Your task to perform on an android device: Open Maps and search for coffee Image 0: 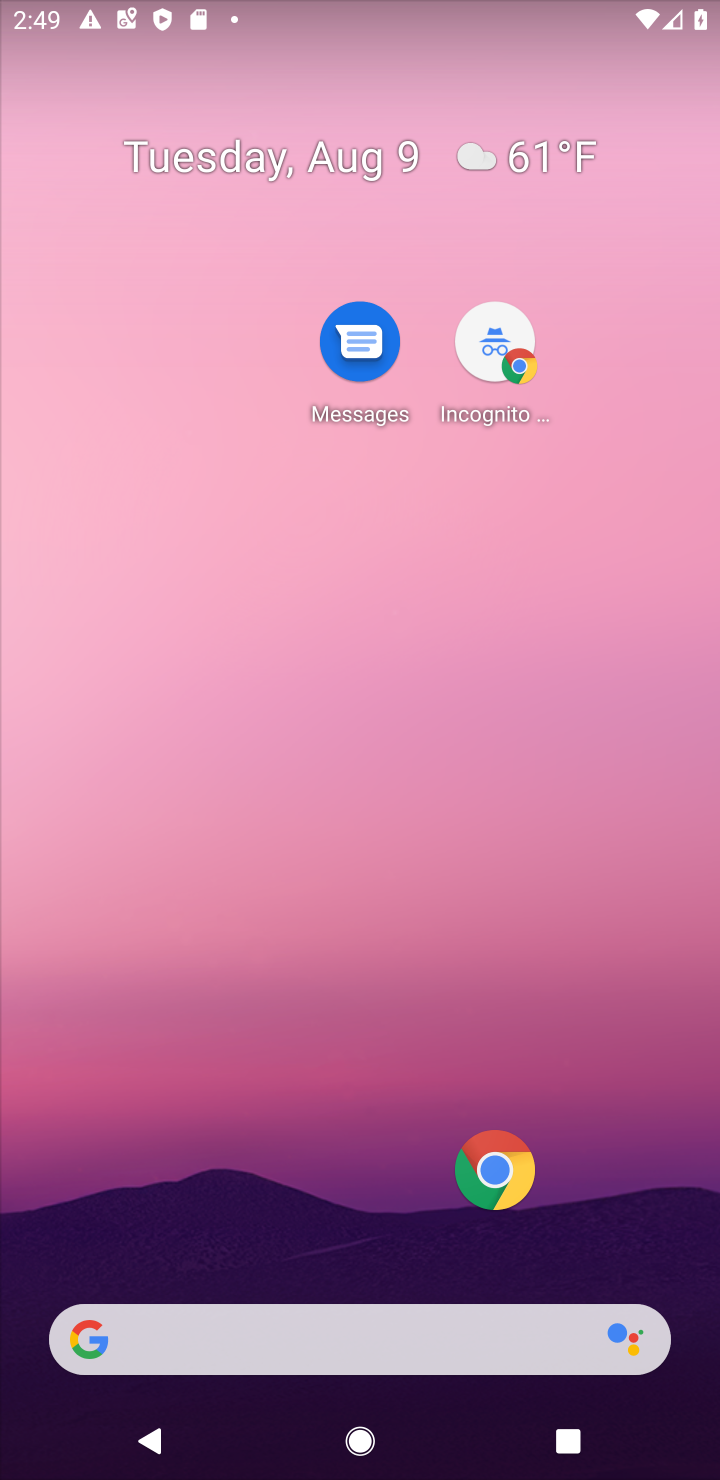
Step 0: drag from (353, 1220) to (497, 1)
Your task to perform on an android device: Open Maps and search for coffee Image 1: 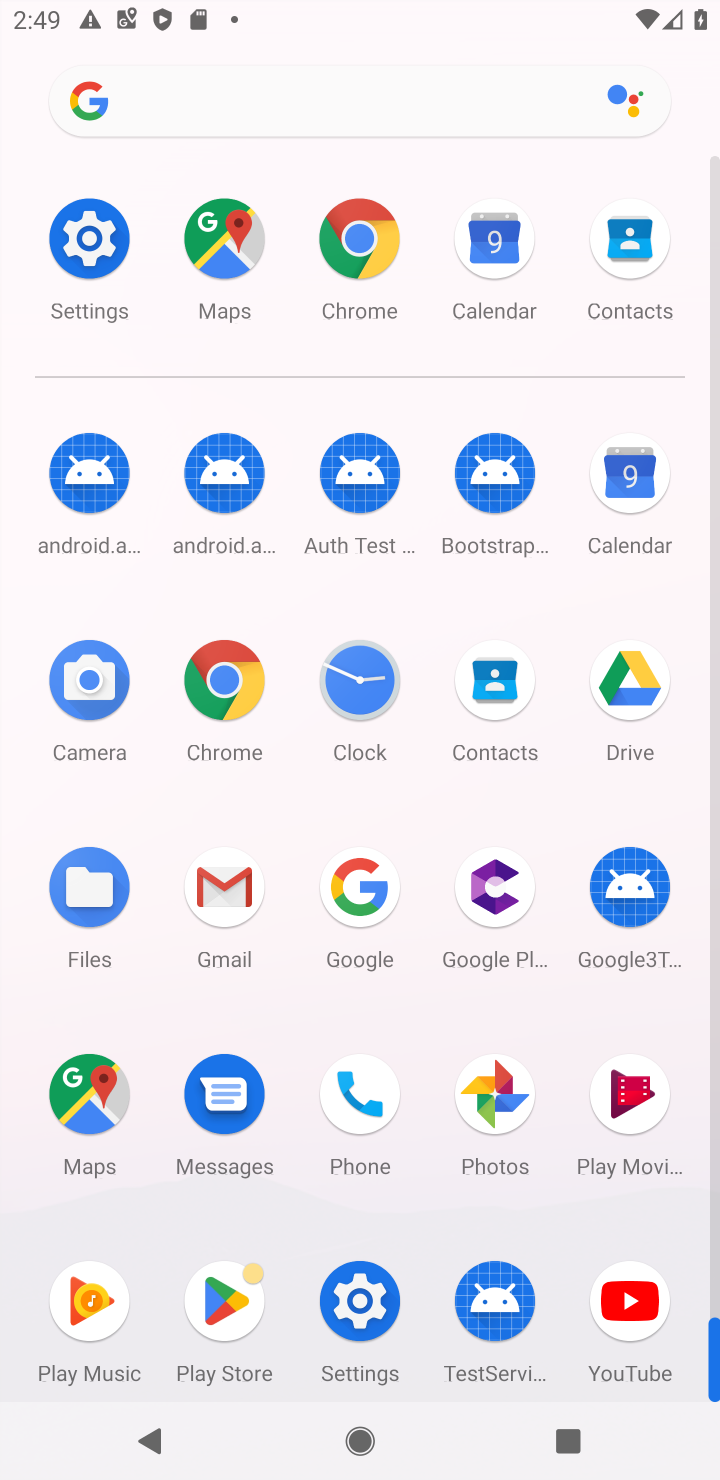
Step 1: click (101, 1102)
Your task to perform on an android device: Open Maps and search for coffee Image 2: 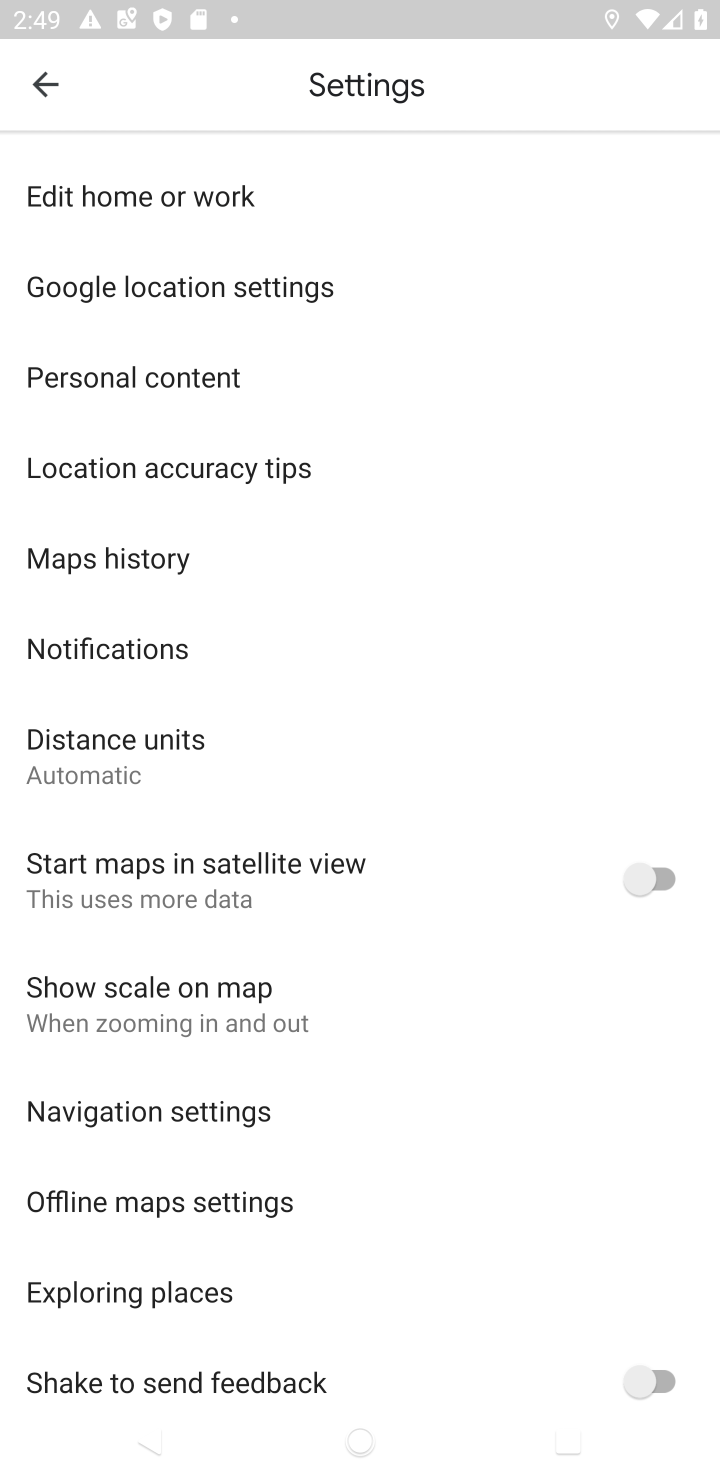
Step 2: click (49, 106)
Your task to perform on an android device: Open Maps and search for coffee Image 3: 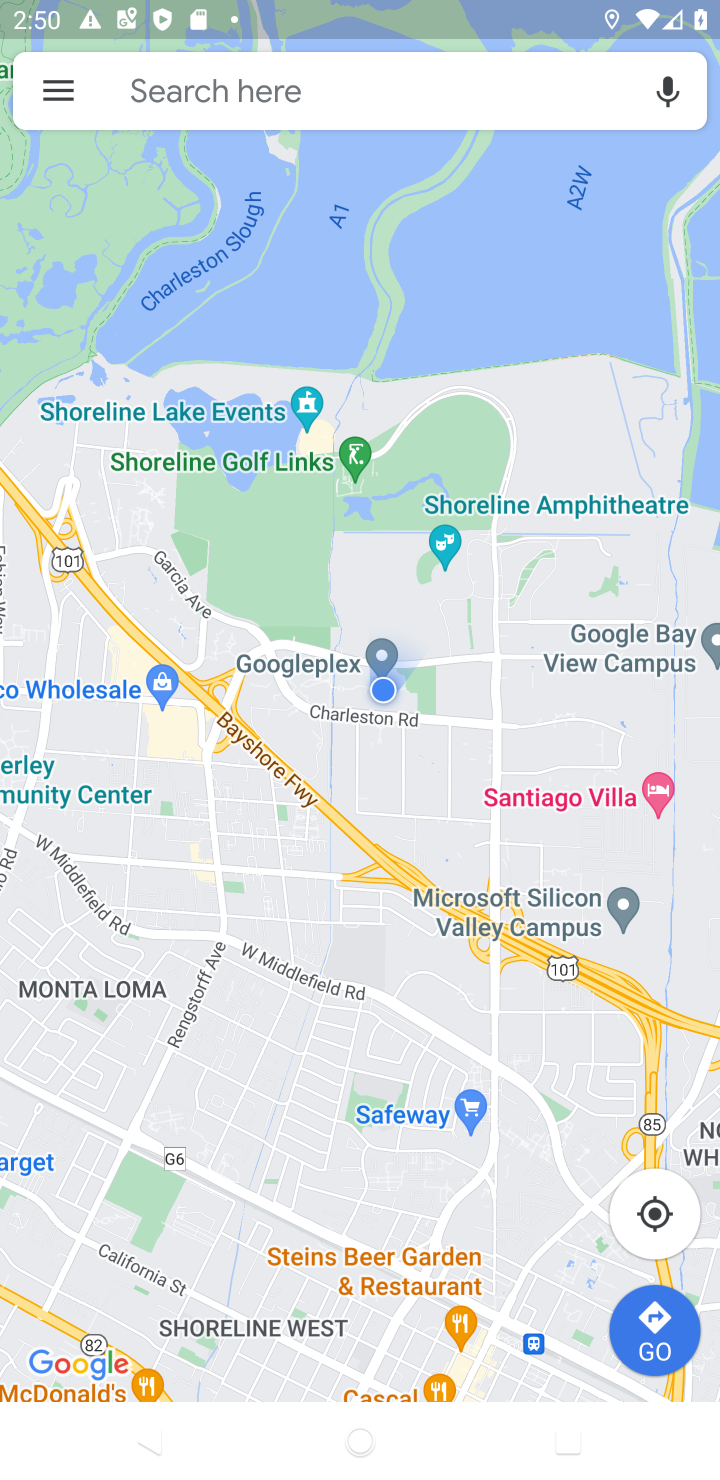
Step 3: click (249, 83)
Your task to perform on an android device: Open Maps and search for coffee Image 4: 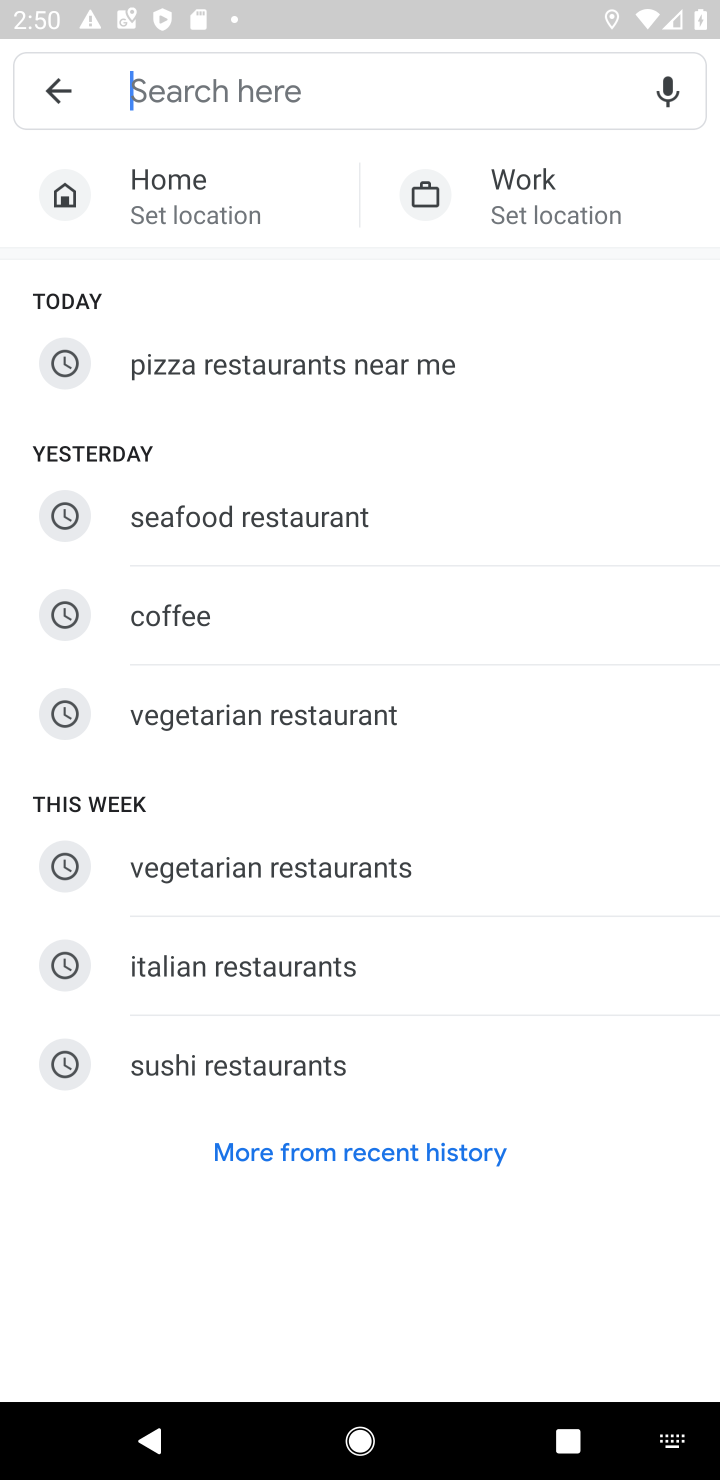
Step 4: type "coffee"
Your task to perform on an android device: Open Maps and search for coffee Image 5: 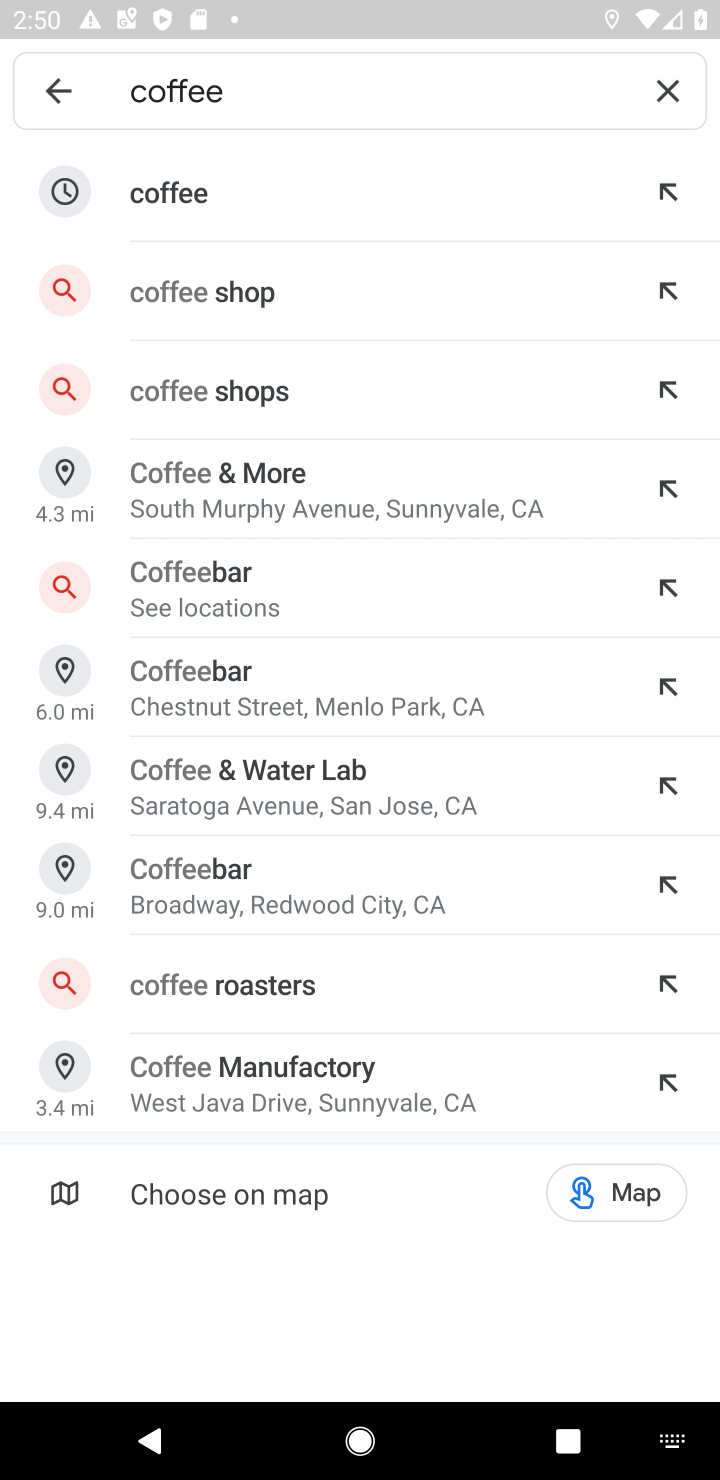
Step 5: click (202, 183)
Your task to perform on an android device: Open Maps and search for coffee Image 6: 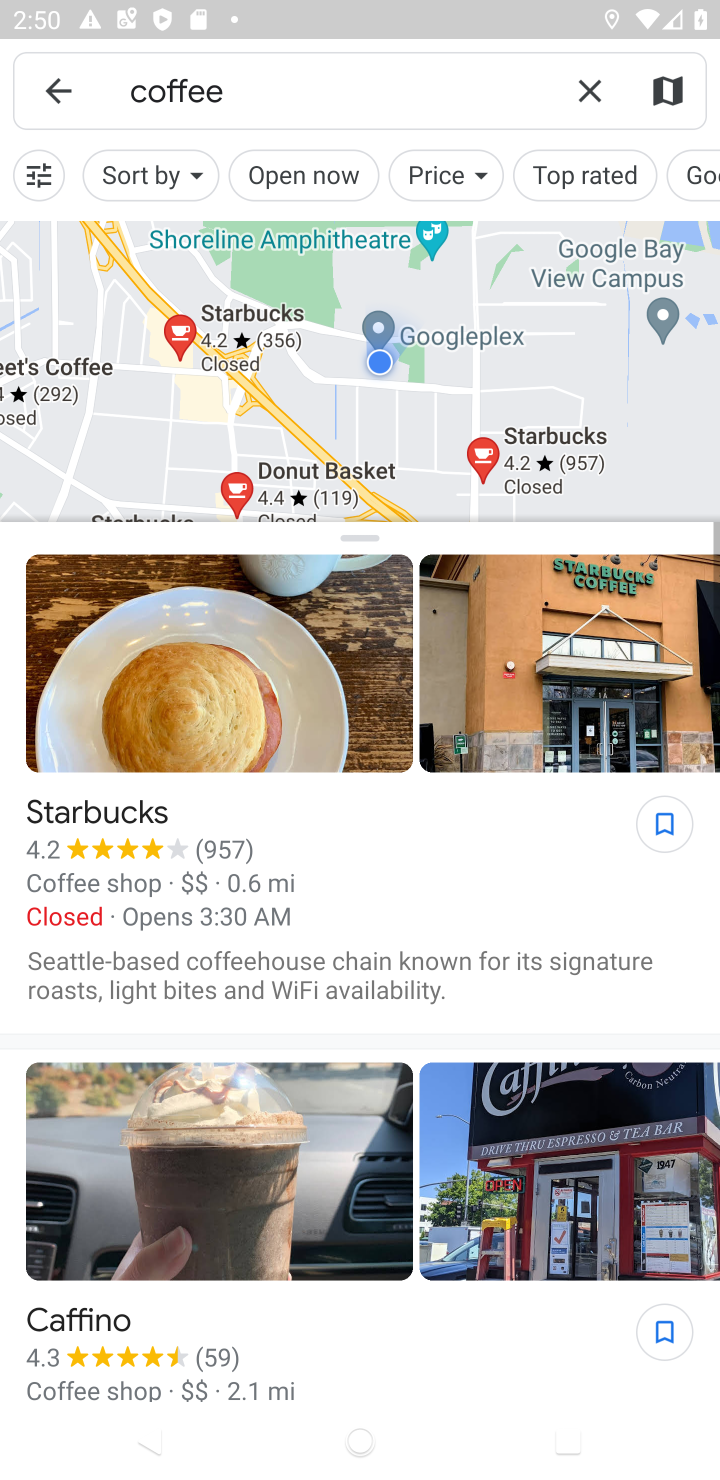
Step 6: task complete